Your task to perform on an android device: Search for razer blade on target, select the first entry, and add it to the cart. Image 0: 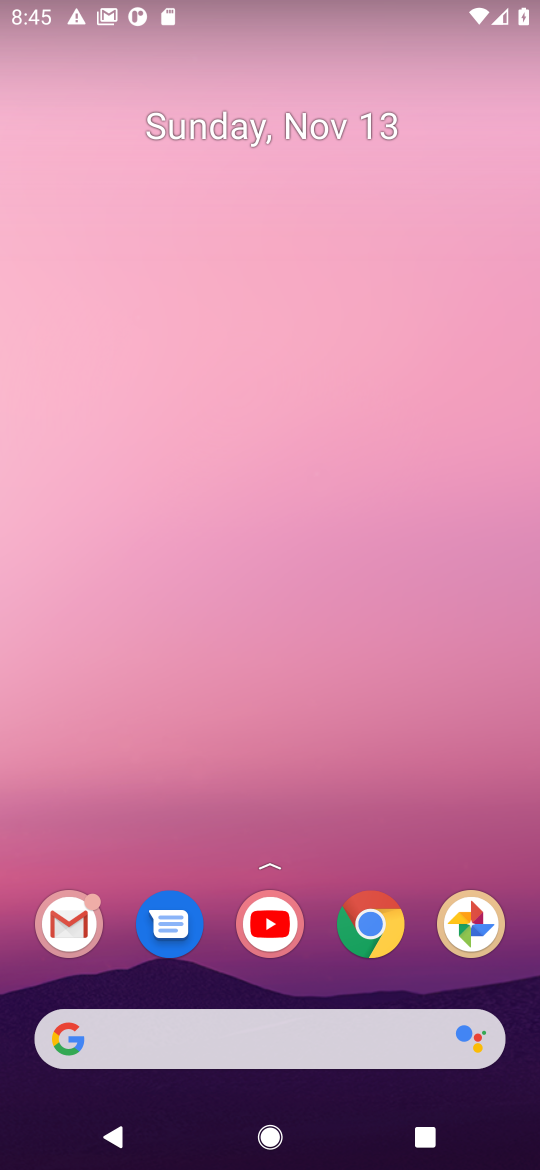
Step 0: click (359, 935)
Your task to perform on an android device: Search for razer blade on target, select the first entry, and add it to the cart. Image 1: 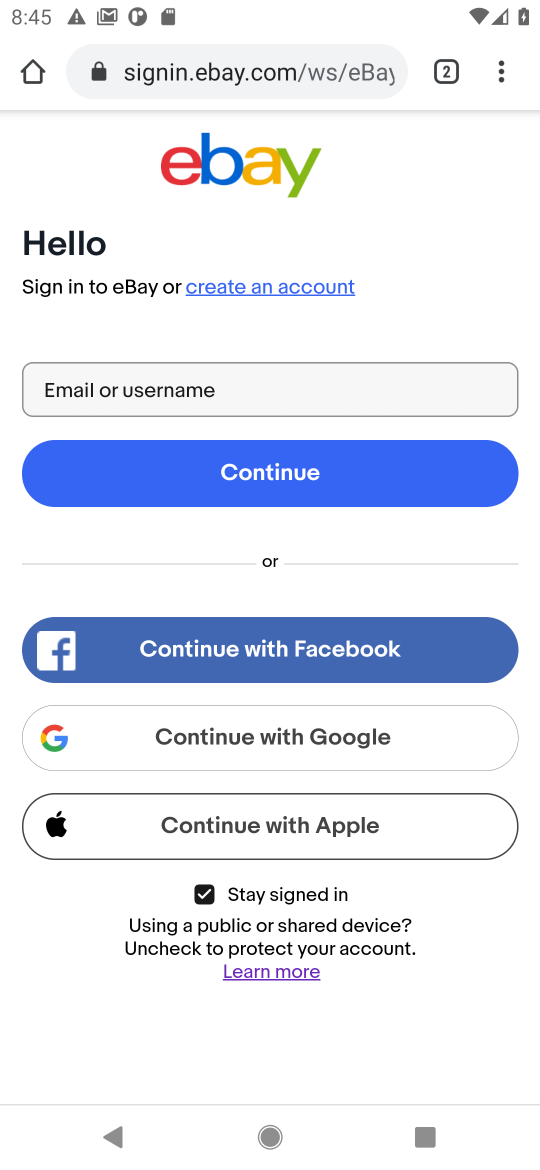
Step 1: click (298, 75)
Your task to perform on an android device: Search for razer blade on target, select the first entry, and add it to the cart. Image 2: 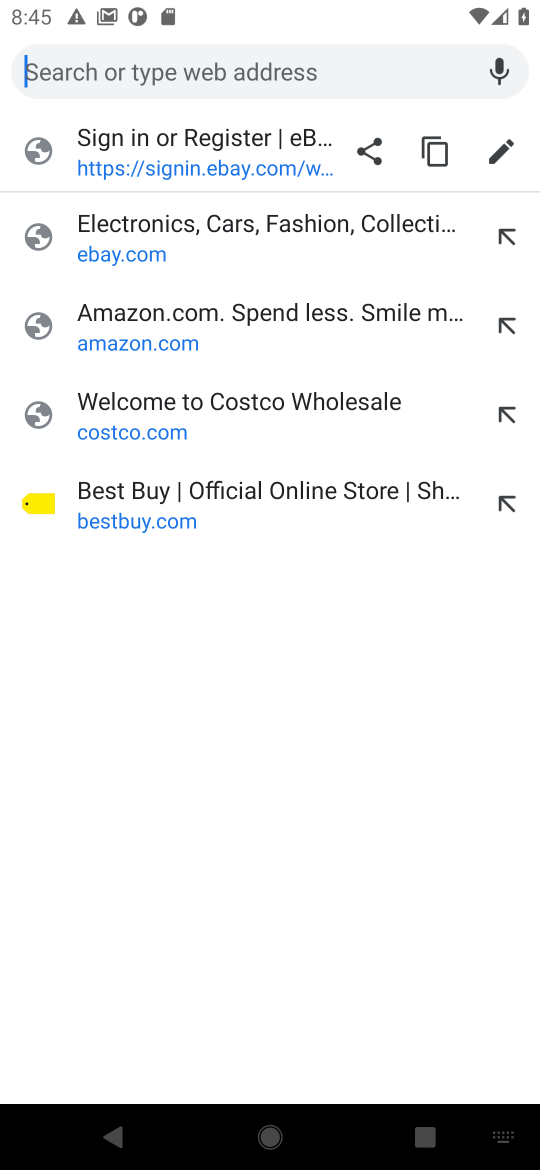
Step 2: type "target.com"
Your task to perform on an android device: Search for razer blade on target, select the first entry, and add it to the cart. Image 3: 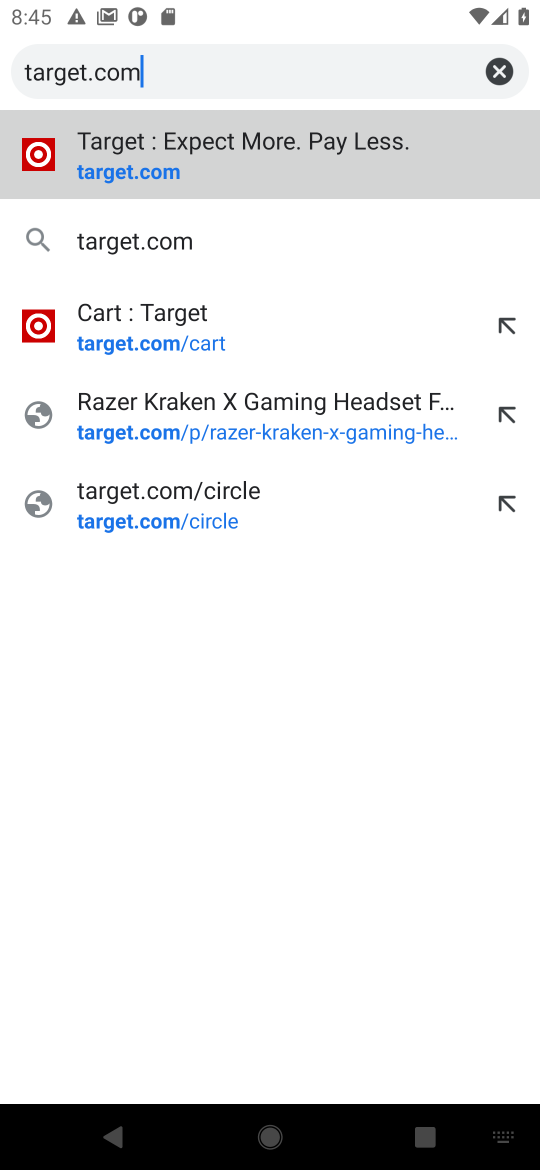
Step 3: click (144, 149)
Your task to perform on an android device: Search for razer blade on target, select the first entry, and add it to the cart. Image 4: 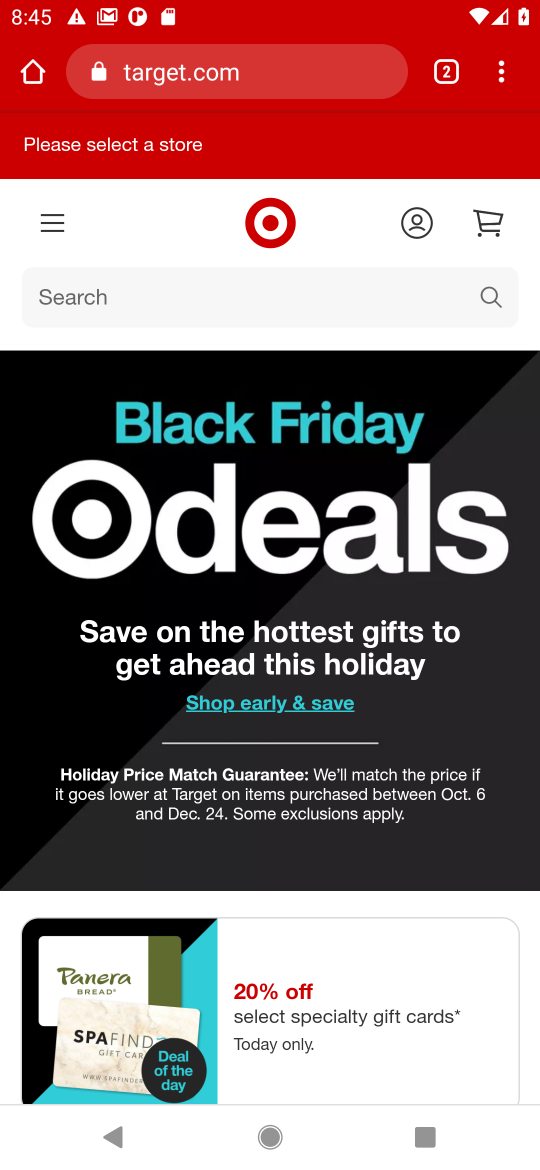
Step 4: click (492, 294)
Your task to perform on an android device: Search for razer blade on target, select the first entry, and add it to the cart. Image 5: 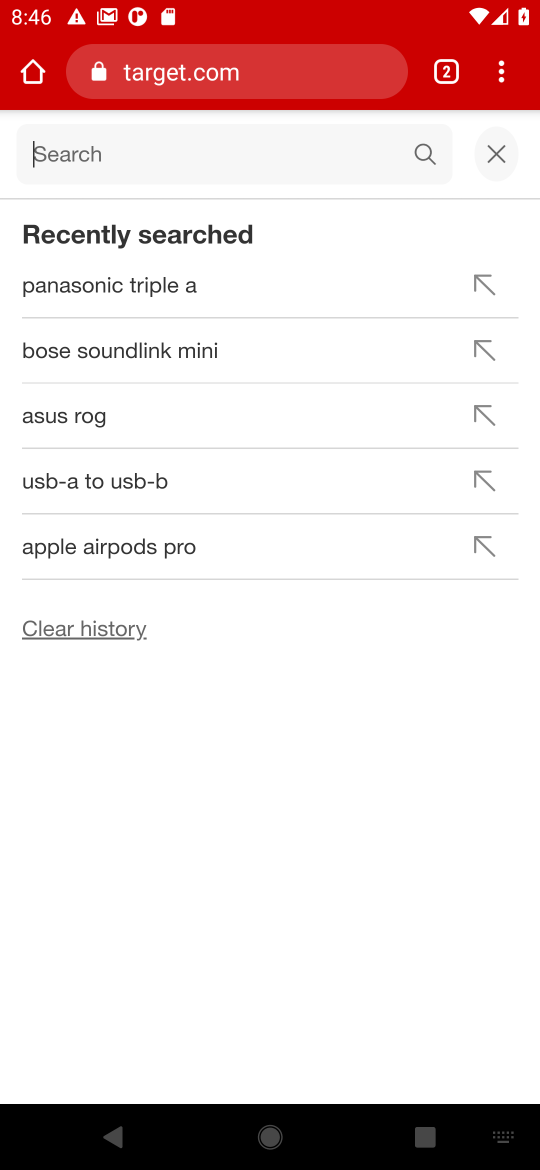
Step 5: type "razer blade"
Your task to perform on an android device: Search for razer blade on target, select the first entry, and add it to the cart. Image 6: 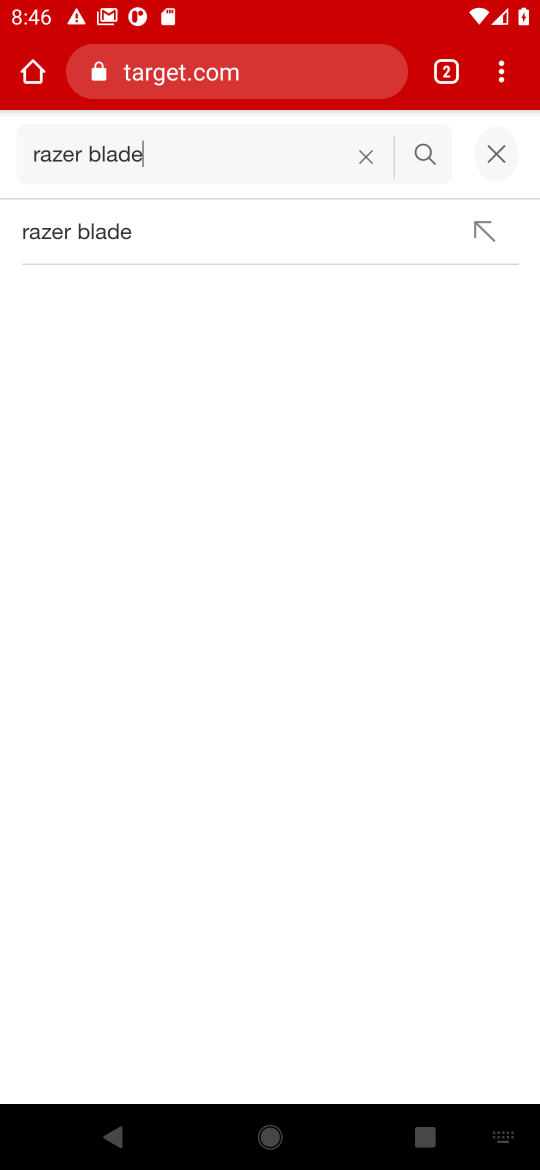
Step 6: click (96, 244)
Your task to perform on an android device: Search for razer blade on target, select the first entry, and add it to the cart. Image 7: 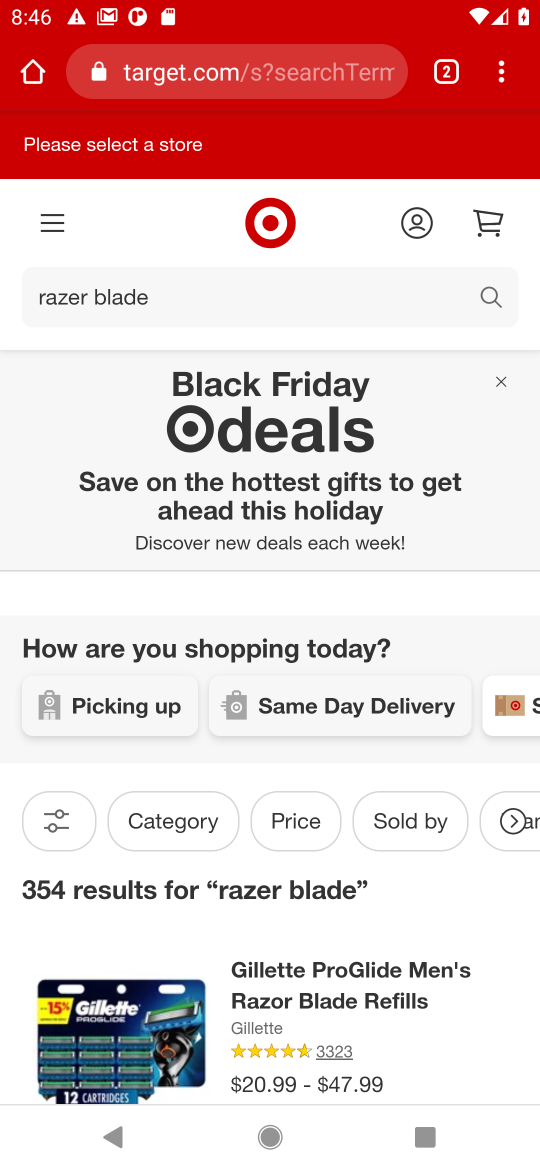
Step 7: task complete